Your task to perform on an android device: Show me popular games on the Play Store Image 0: 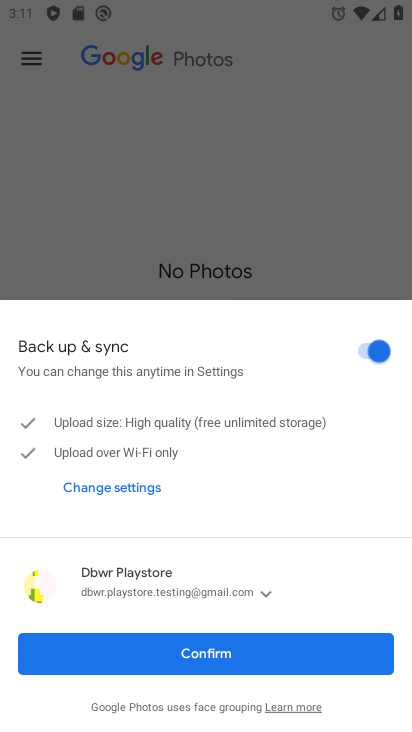
Step 0: press home button
Your task to perform on an android device: Show me popular games on the Play Store Image 1: 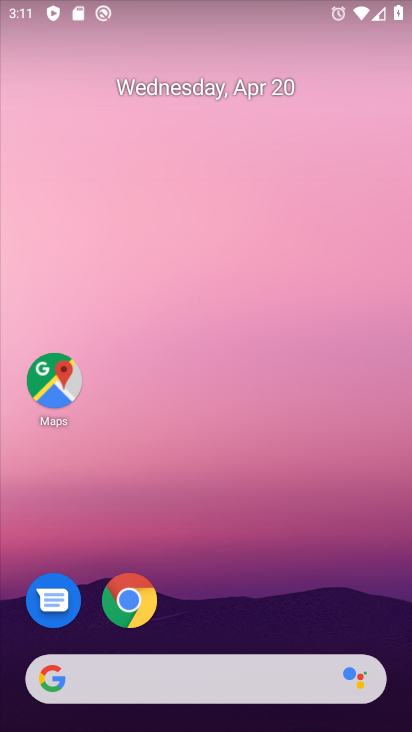
Step 1: drag from (257, 513) to (276, 288)
Your task to perform on an android device: Show me popular games on the Play Store Image 2: 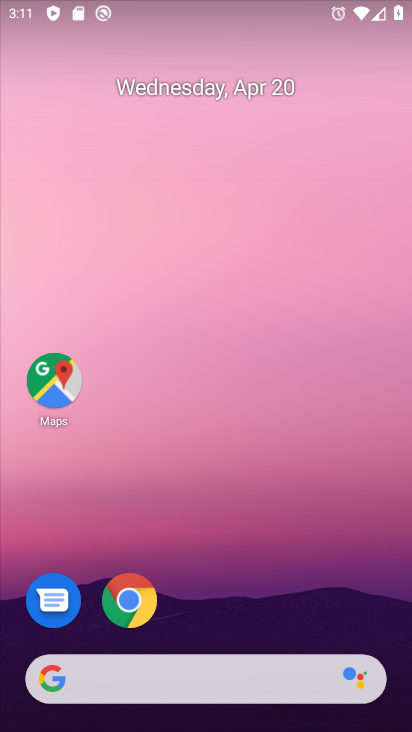
Step 2: drag from (229, 626) to (245, 310)
Your task to perform on an android device: Show me popular games on the Play Store Image 3: 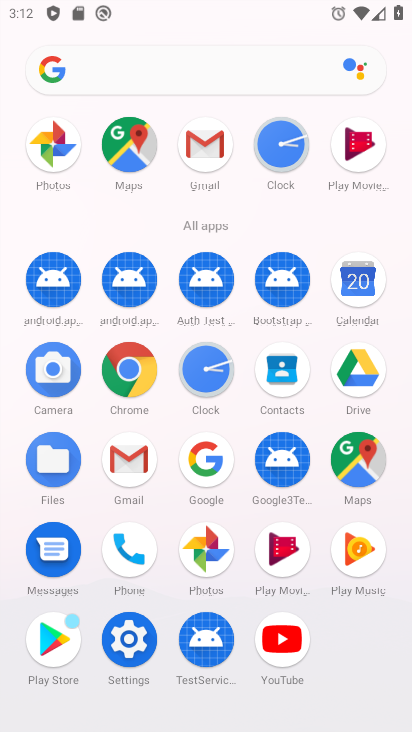
Step 3: click (47, 637)
Your task to perform on an android device: Show me popular games on the Play Store Image 4: 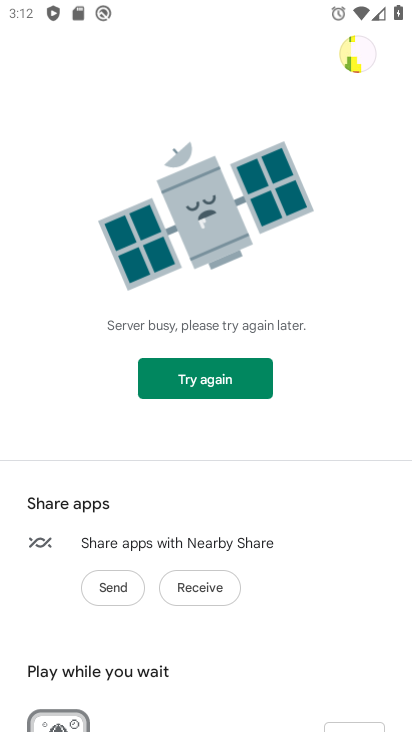
Step 4: press home button
Your task to perform on an android device: Show me popular games on the Play Store Image 5: 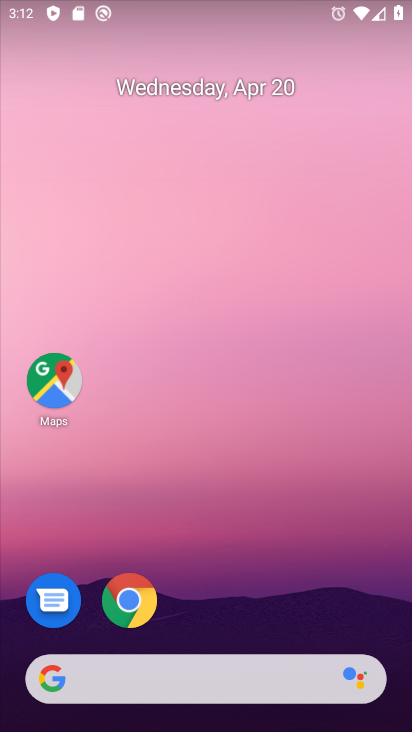
Step 5: drag from (271, 365) to (312, 174)
Your task to perform on an android device: Show me popular games on the Play Store Image 6: 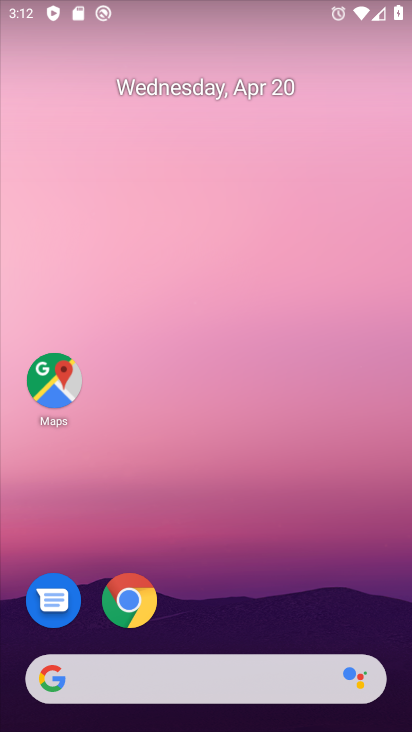
Step 6: drag from (243, 291) to (295, 6)
Your task to perform on an android device: Show me popular games on the Play Store Image 7: 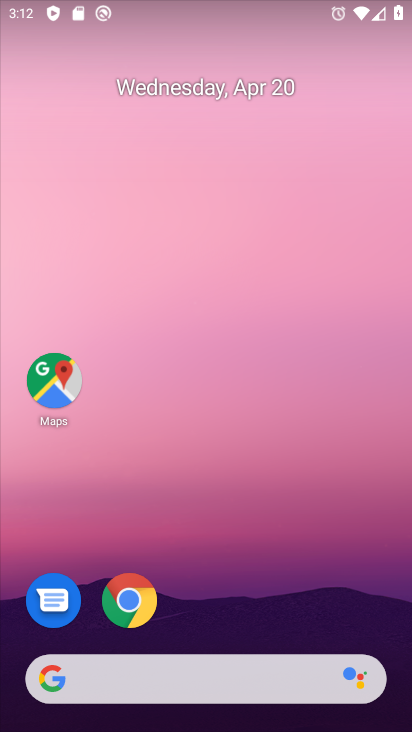
Step 7: drag from (237, 467) to (256, 279)
Your task to perform on an android device: Show me popular games on the Play Store Image 8: 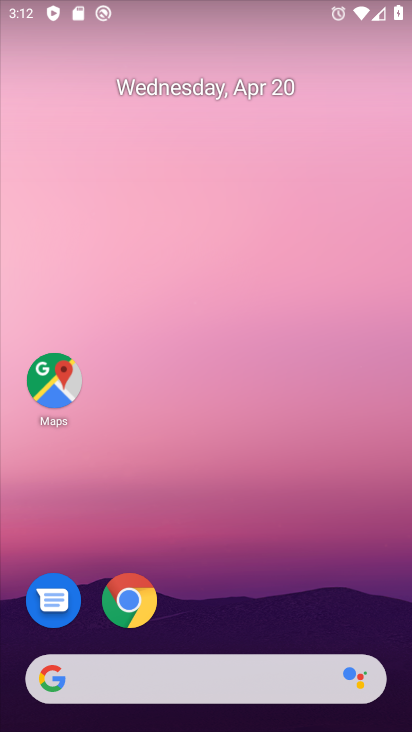
Step 8: drag from (259, 458) to (285, 170)
Your task to perform on an android device: Show me popular games on the Play Store Image 9: 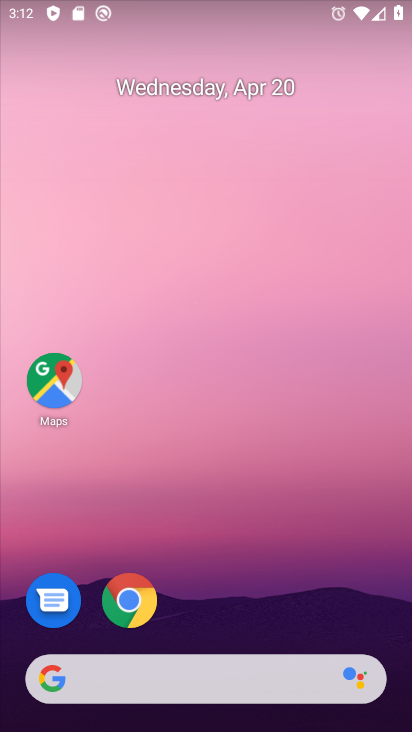
Step 9: drag from (220, 632) to (281, 58)
Your task to perform on an android device: Show me popular games on the Play Store Image 10: 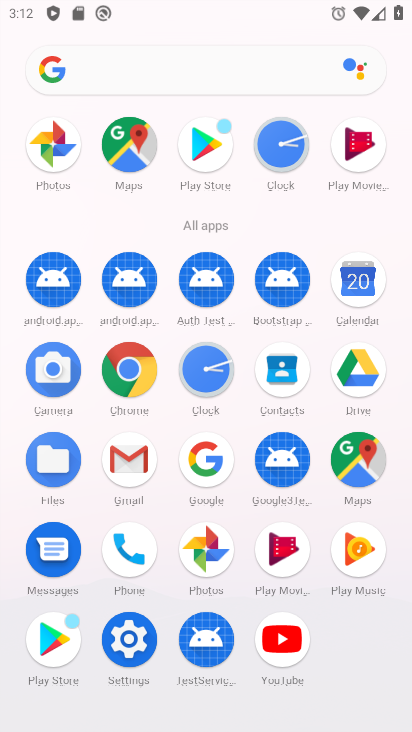
Step 10: click (46, 628)
Your task to perform on an android device: Show me popular games on the Play Store Image 11: 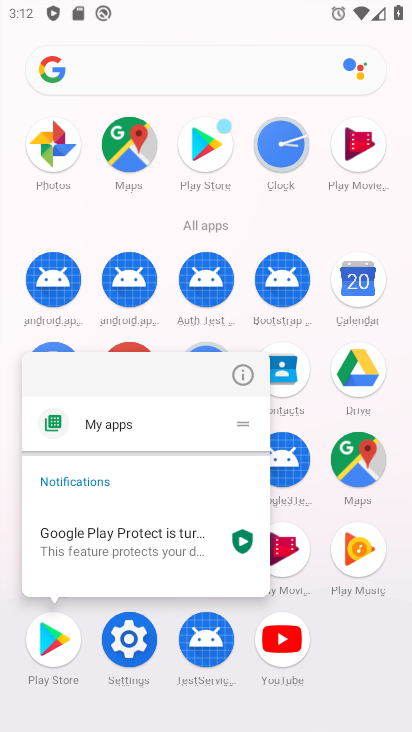
Step 11: click (46, 628)
Your task to perform on an android device: Show me popular games on the Play Store Image 12: 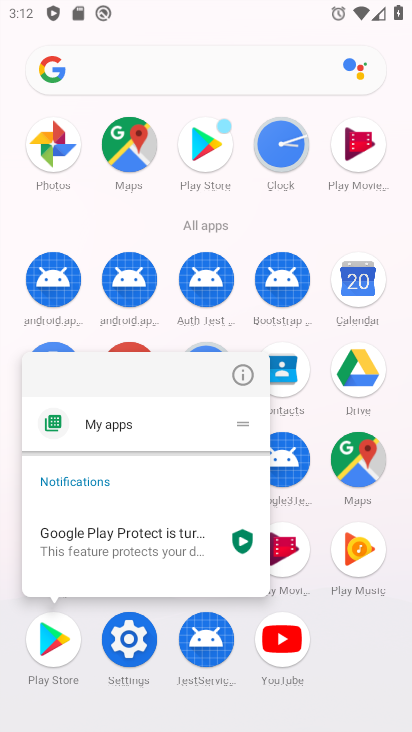
Step 12: click (53, 628)
Your task to perform on an android device: Show me popular games on the Play Store Image 13: 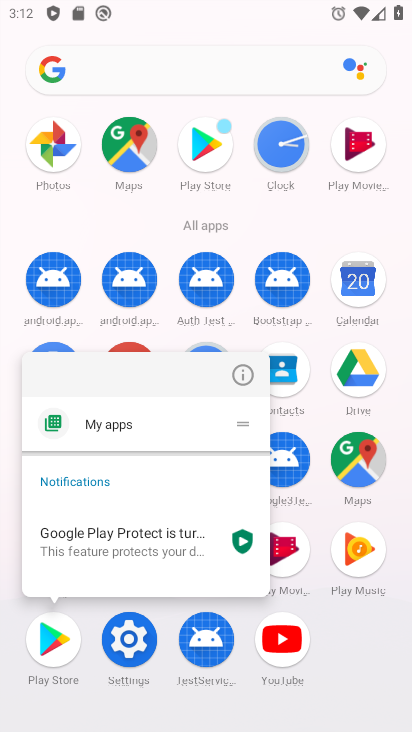
Step 13: click (53, 628)
Your task to perform on an android device: Show me popular games on the Play Store Image 14: 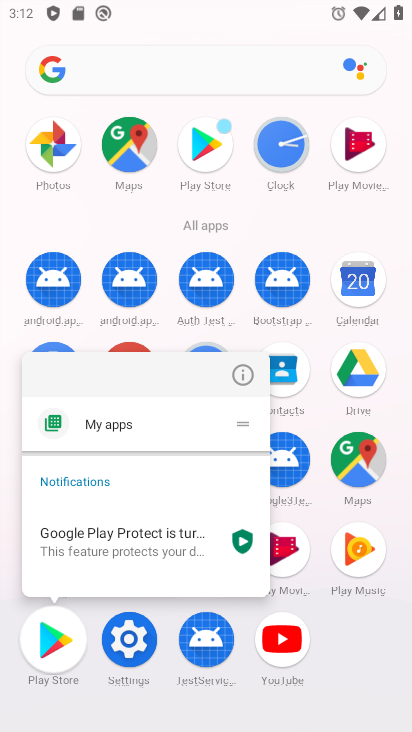
Step 14: click (53, 628)
Your task to perform on an android device: Show me popular games on the Play Store Image 15: 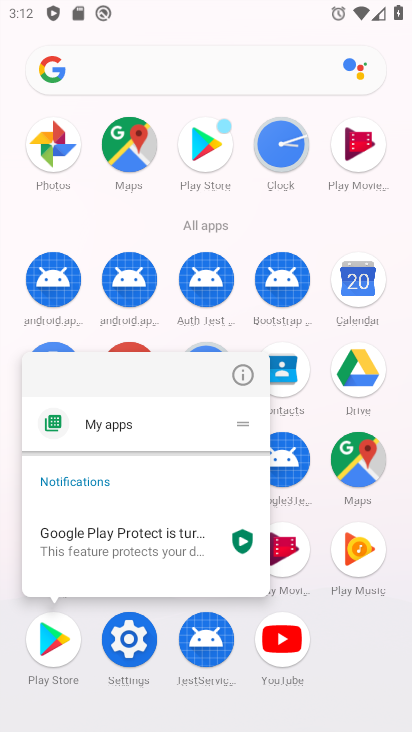
Step 15: click (53, 628)
Your task to perform on an android device: Show me popular games on the Play Store Image 16: 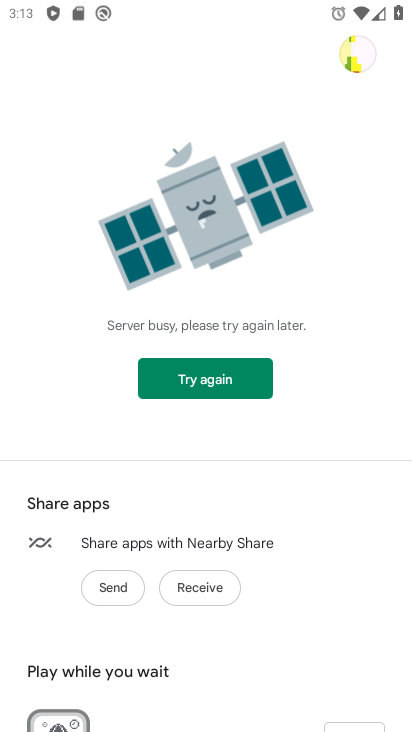
Step 16: drag from (233, 688) to (366, 256)
Your task to perform on an android device: Show me popular games on the Play Store Image 17: 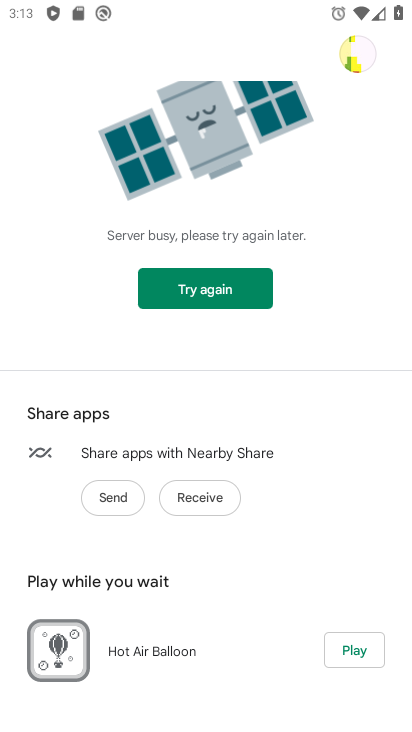
Step 17: click (202, 284)
Your task to perform on an android device: Show me popular games on the Play Store Image 18: 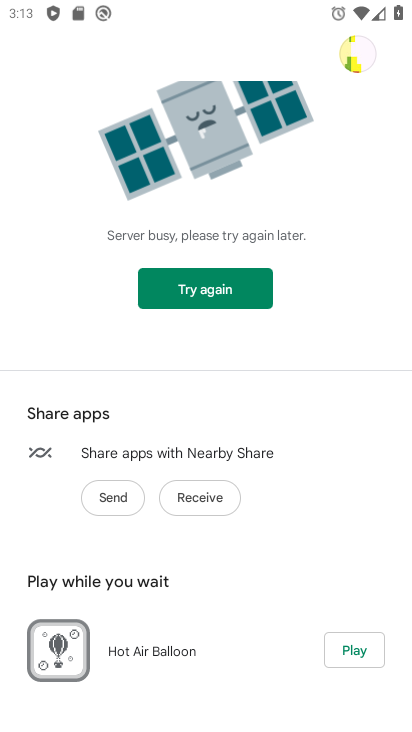
Step 18: task complete